Your task to perform on an android device: See recent photos Image 0: 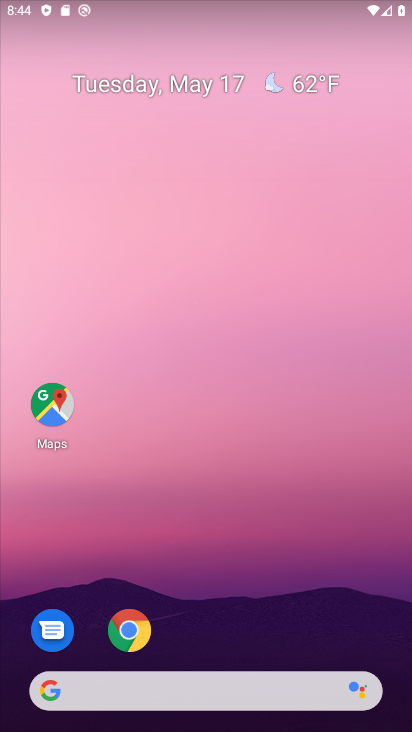
Step 0: drag from (202, 655) to (163, 133)
Your task to perform on an android device: See recent photos Image 1: 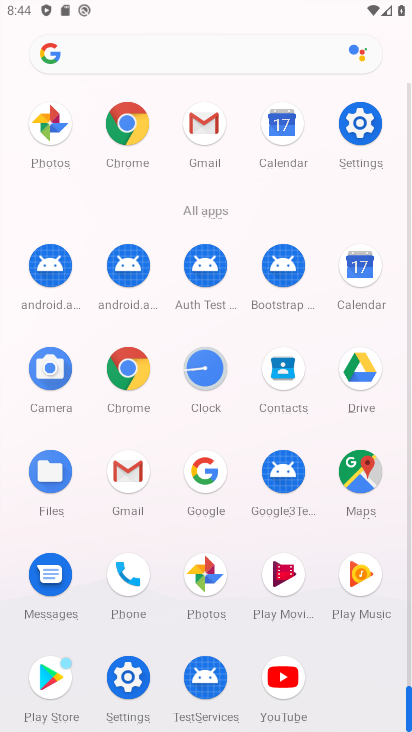
Step 1: click (209, 581)
Your task to perform on an android device: See recent photos Image 2: 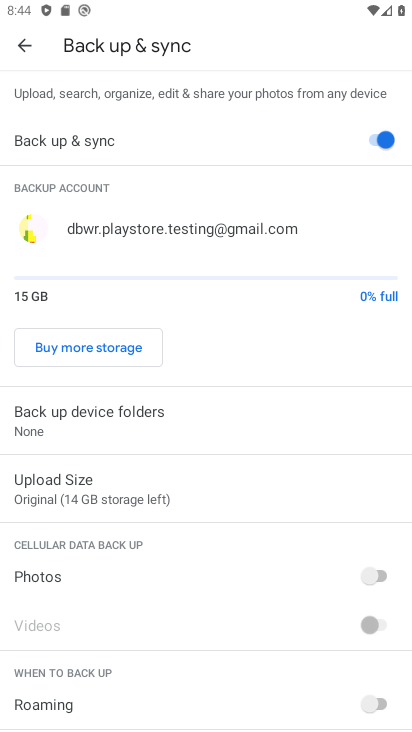
Step 2: click (20, 50)
Your task to perform on an android device: See recent photos Image 3: 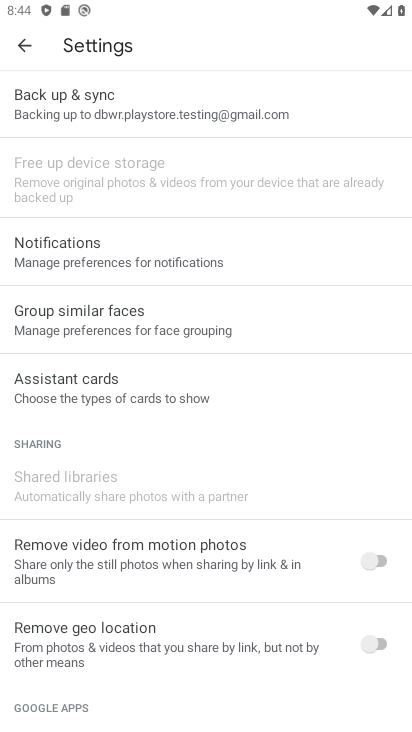
Step 3: click (19, 49)
Your task to perform on an android device: See recent photos Image 4: 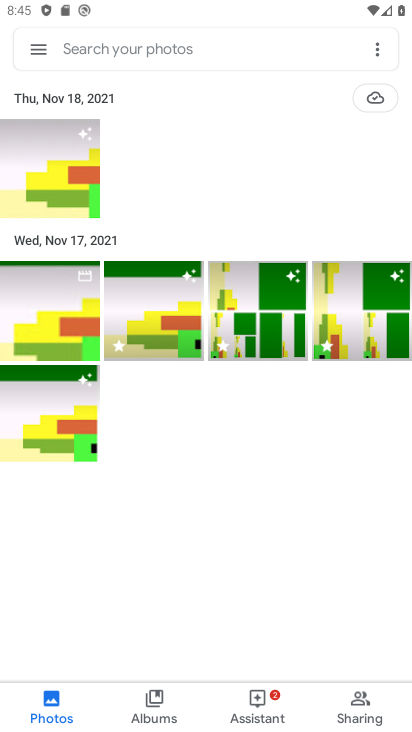
Step 4: task complete